Your task to perform on an android device: open a new tab in the chrome app Image 0: 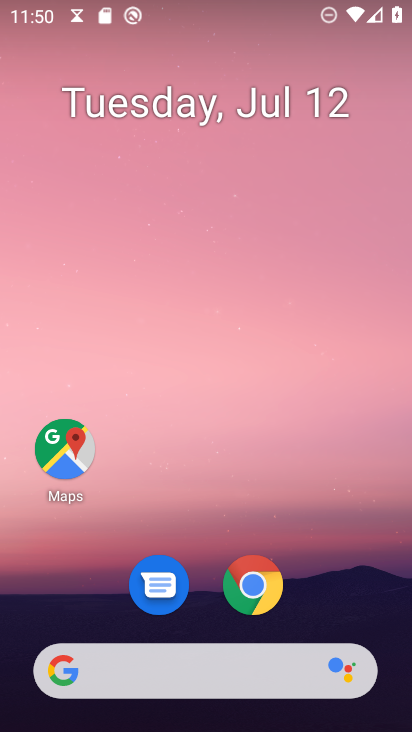
Step 0: press home button
Your task to perform on an android device: open a new tab in the chrome app Image 1: 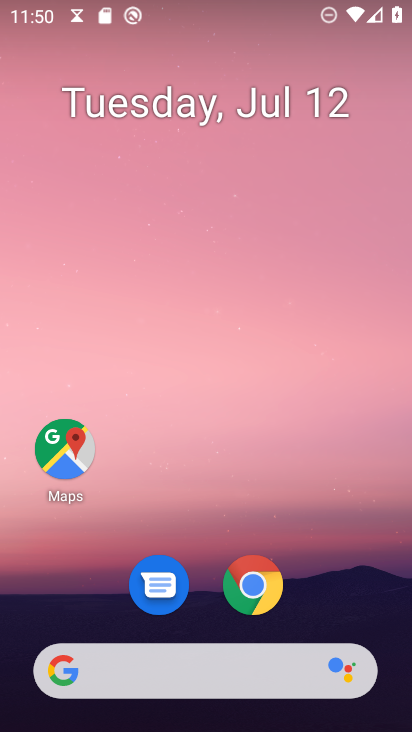
Step 1: click (250, 592)
Your task to perform on an android device: open a new tab in the chrome app Image 2: 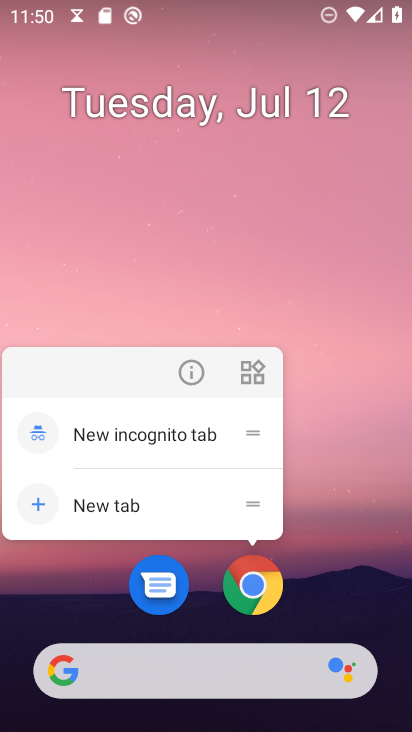
Step 2: click (250, 592)
Your task to perform on an android device: open a new tab in the chrome app Image 3: 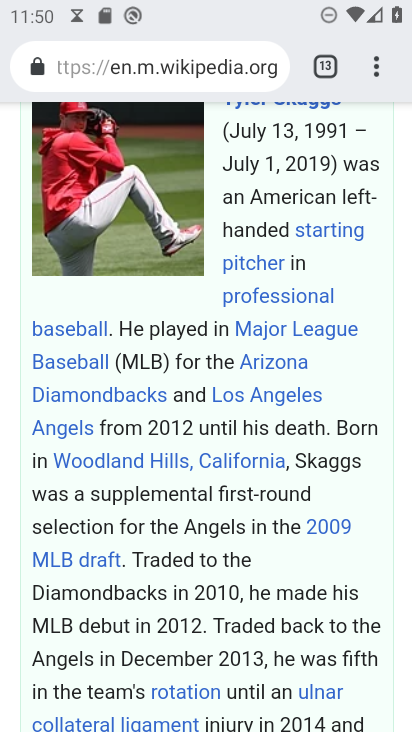
Step 3: task complete